Your task to perform on an android device: Open maps Image 0: 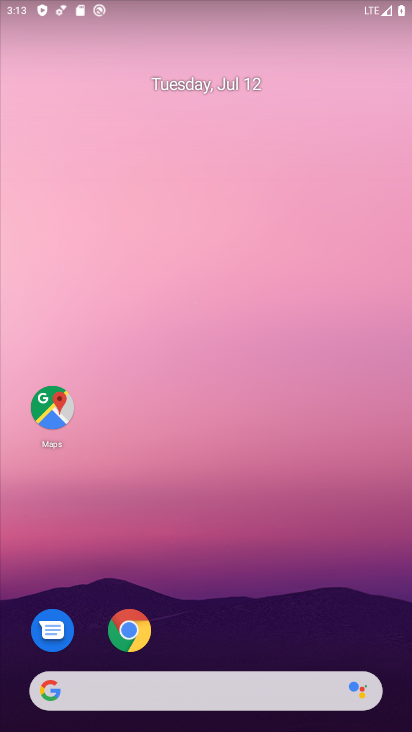
Step 0: click (50, 404)
Your task to perform on an android device: Open maps Image 1: 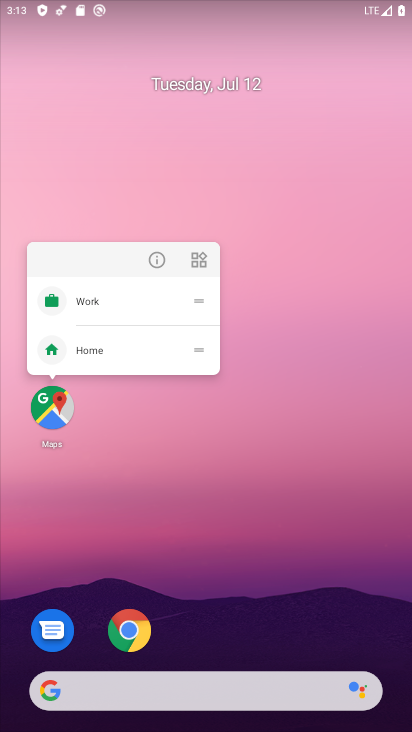
Step 1: click (44, 382)
Your task to perform on an android device: Open maps Image 2: 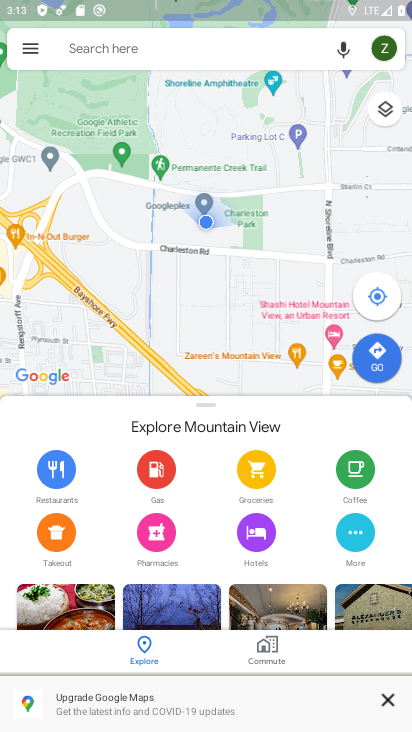
Step 2: task complete